Your task to perform on an android device: install app "Viber Messenger" Image 0: 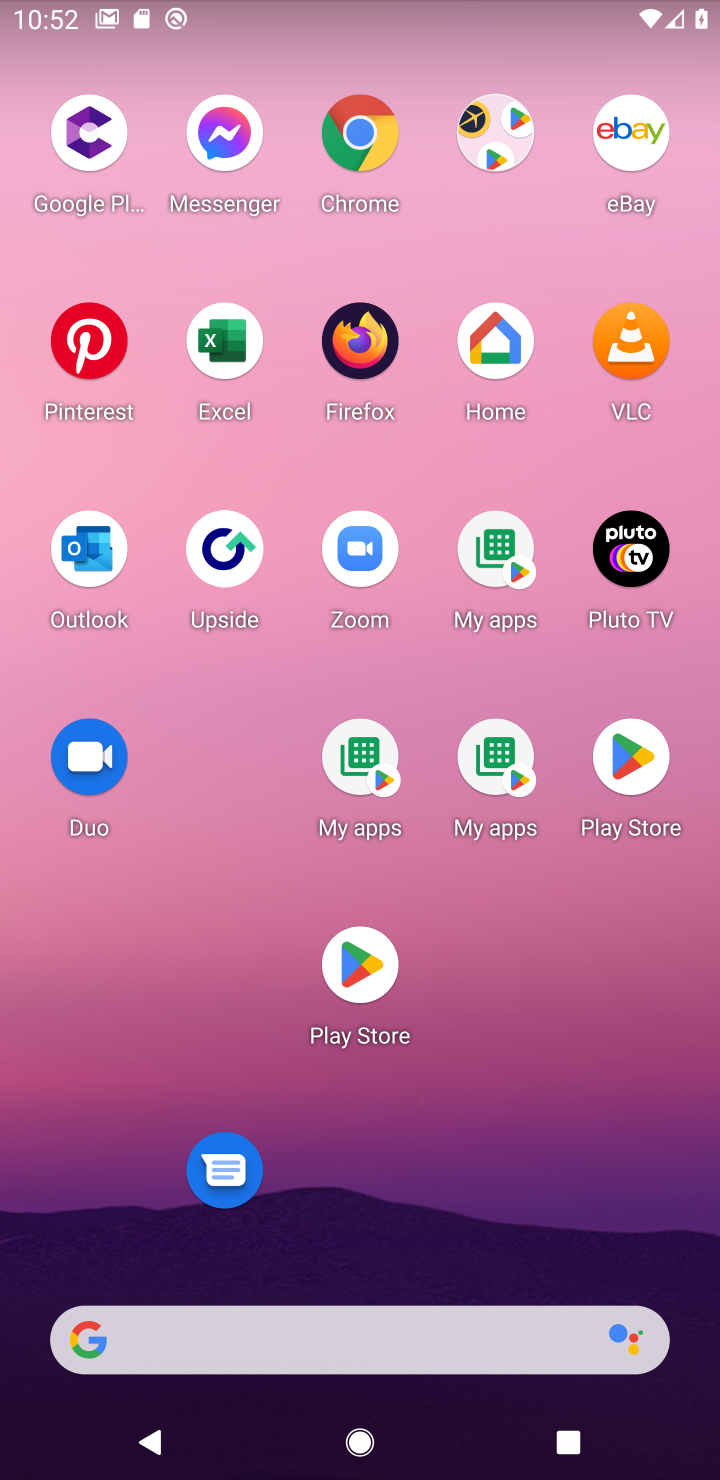
Step 0: click (655, 750)
Your task to perform on an android device: install app "Viber Messenger" Image 1: 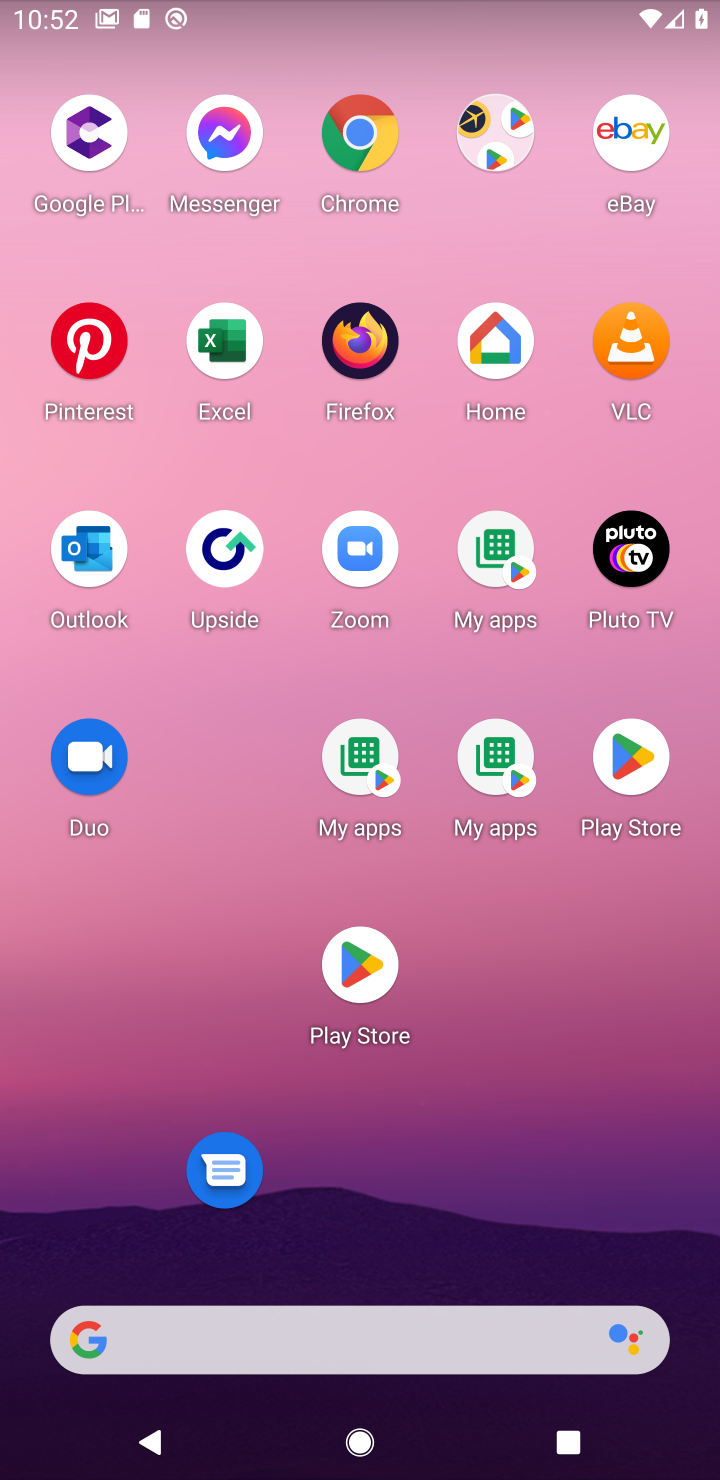
Step 1: click (660, 755)
Your task to perform on an android device: install app "Viber Messenger" Image 2: 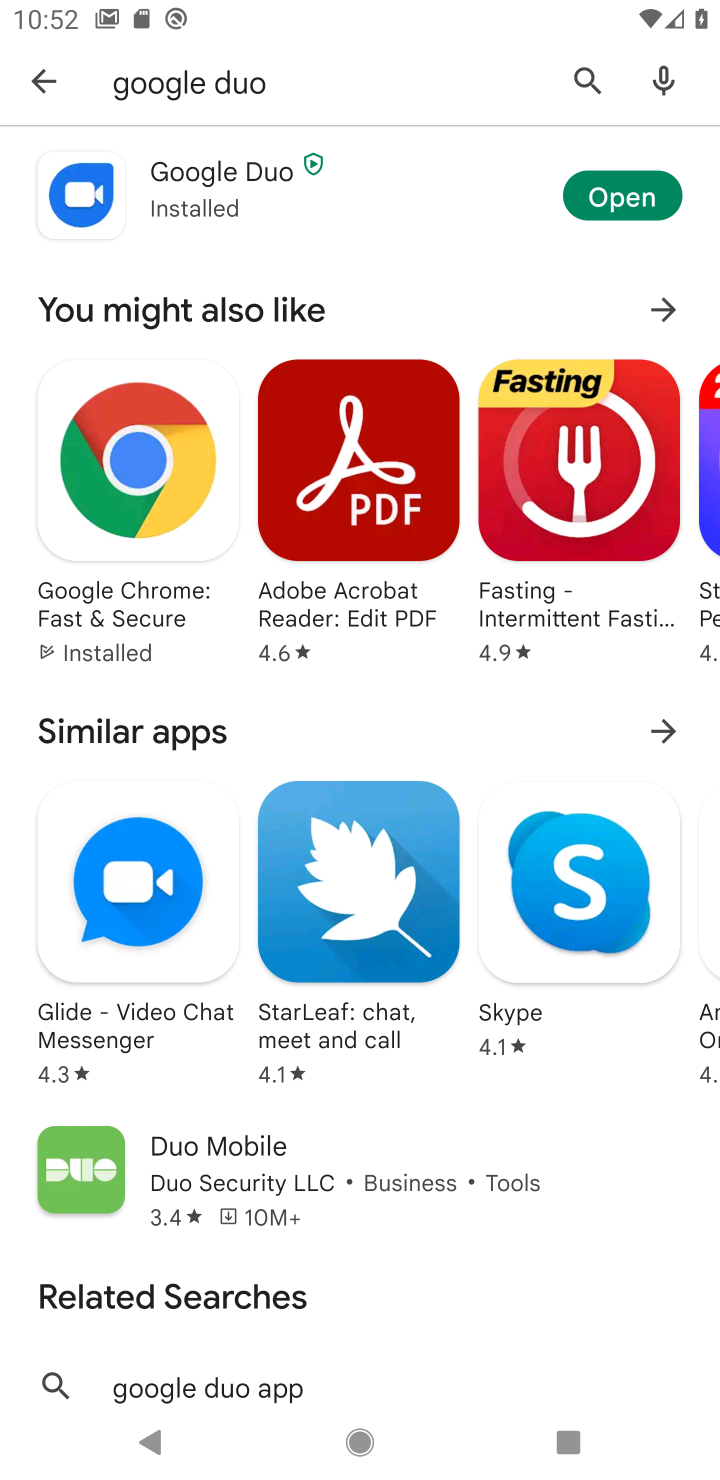
Step 2: click (43, 86)
Your task to perform on an android device: install app "Viber Messenger" Image 3: 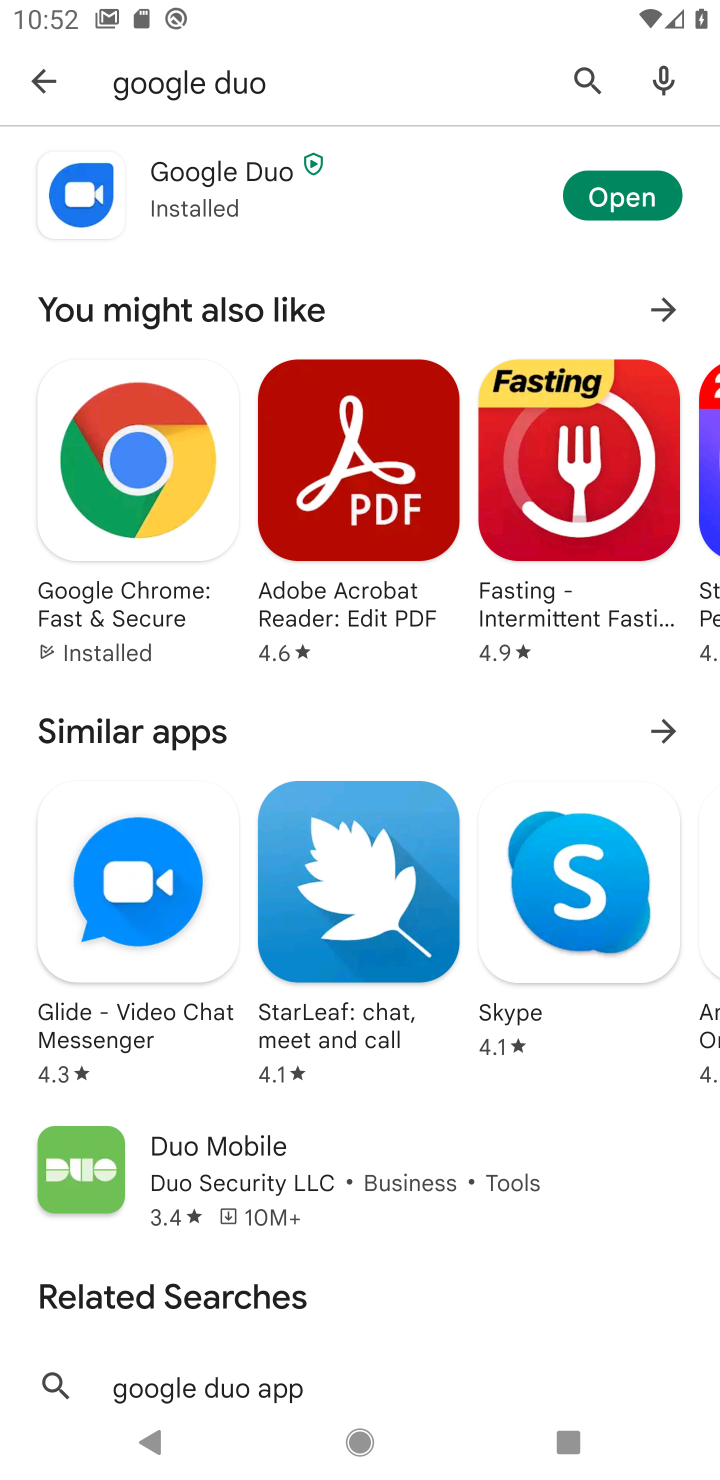
Step 3: click (42, 75)
Your task to perform on an android device: install app "Viber Messenger" Image 4: 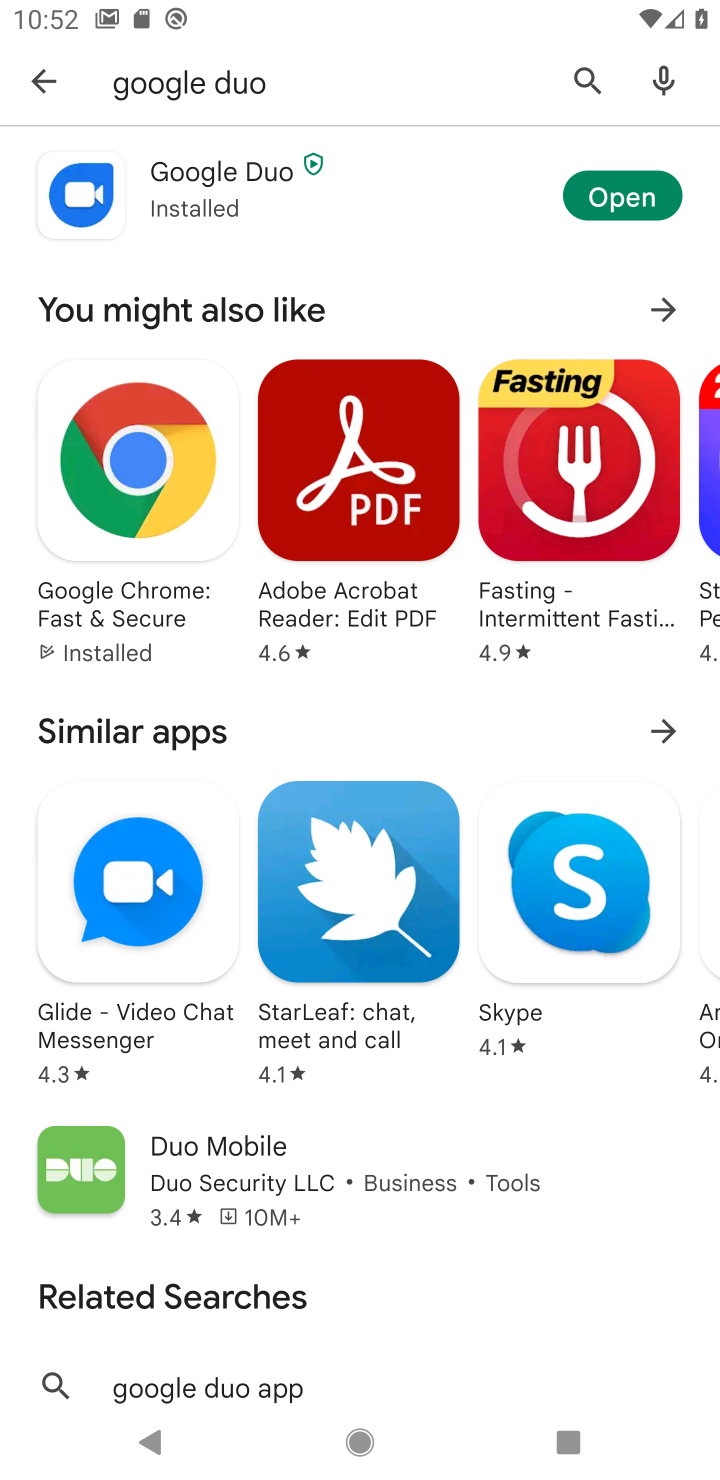
Step 4: click (49, 59)
Your task to perform on an android device: install app "Viber Messenger" Image 5: 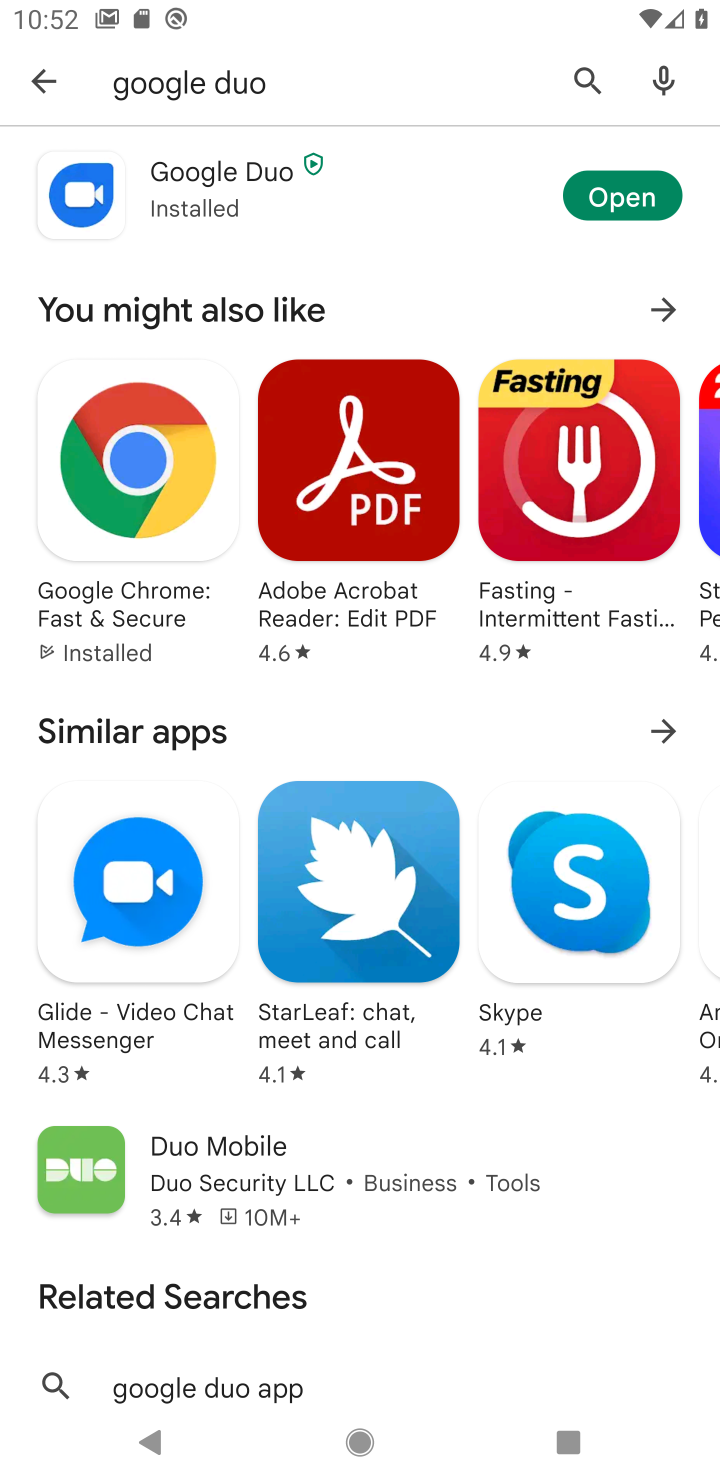
Step 5: click (49, 67)
Your task to perform on an android device: install app "Viber Messenger" Image 6: 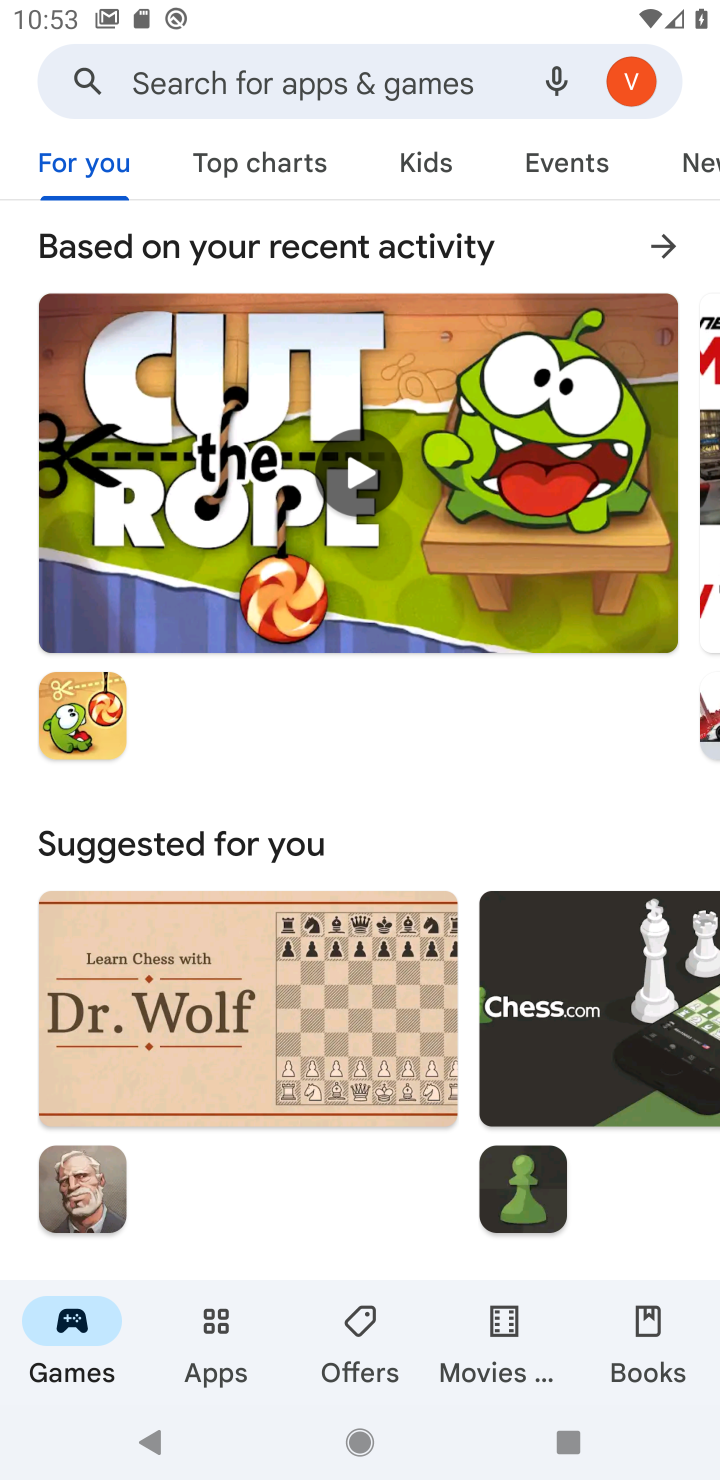
Step 6: click (192, 84)
Your task to perform on an android device: install app "Viber Messenger" Image 7: 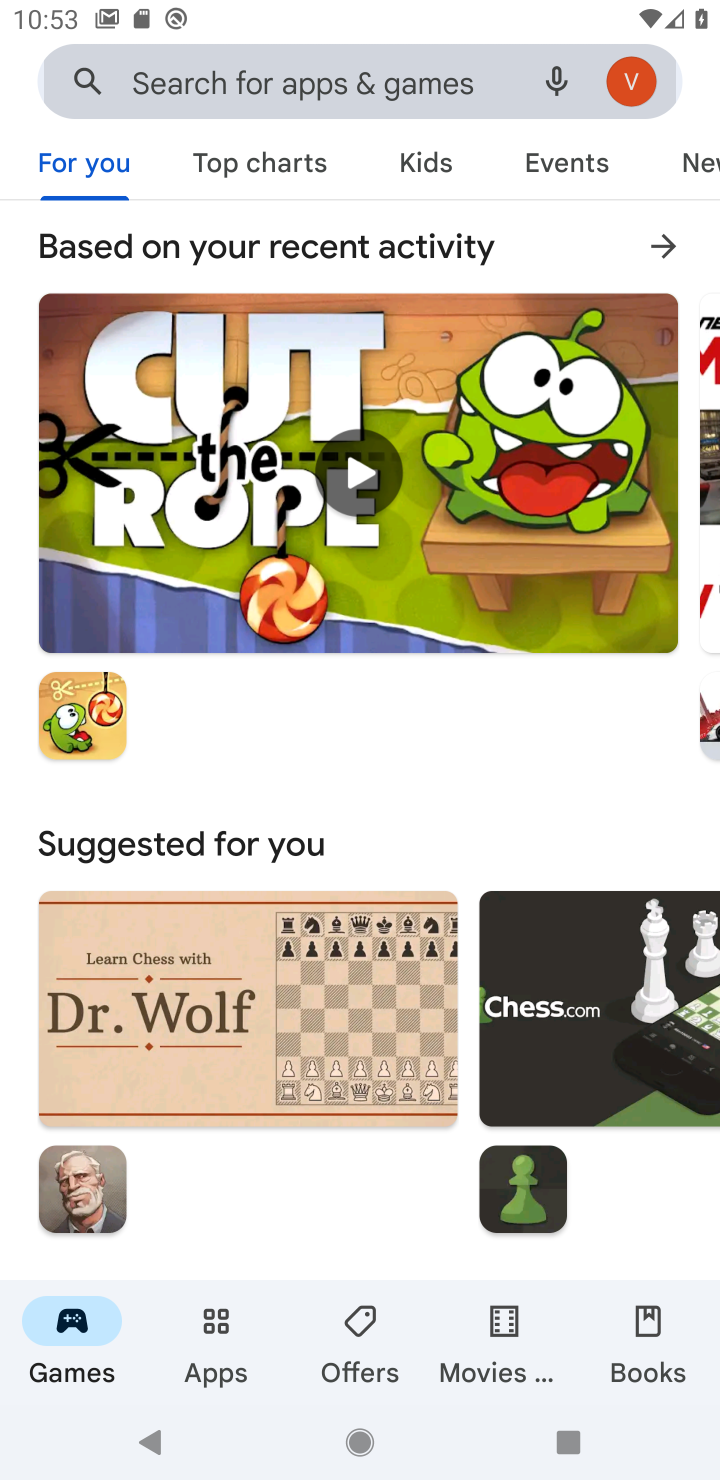
Step 7: click (152, 68)
Your task to perform on an android device: install app "Viber Messenger" Image 8: 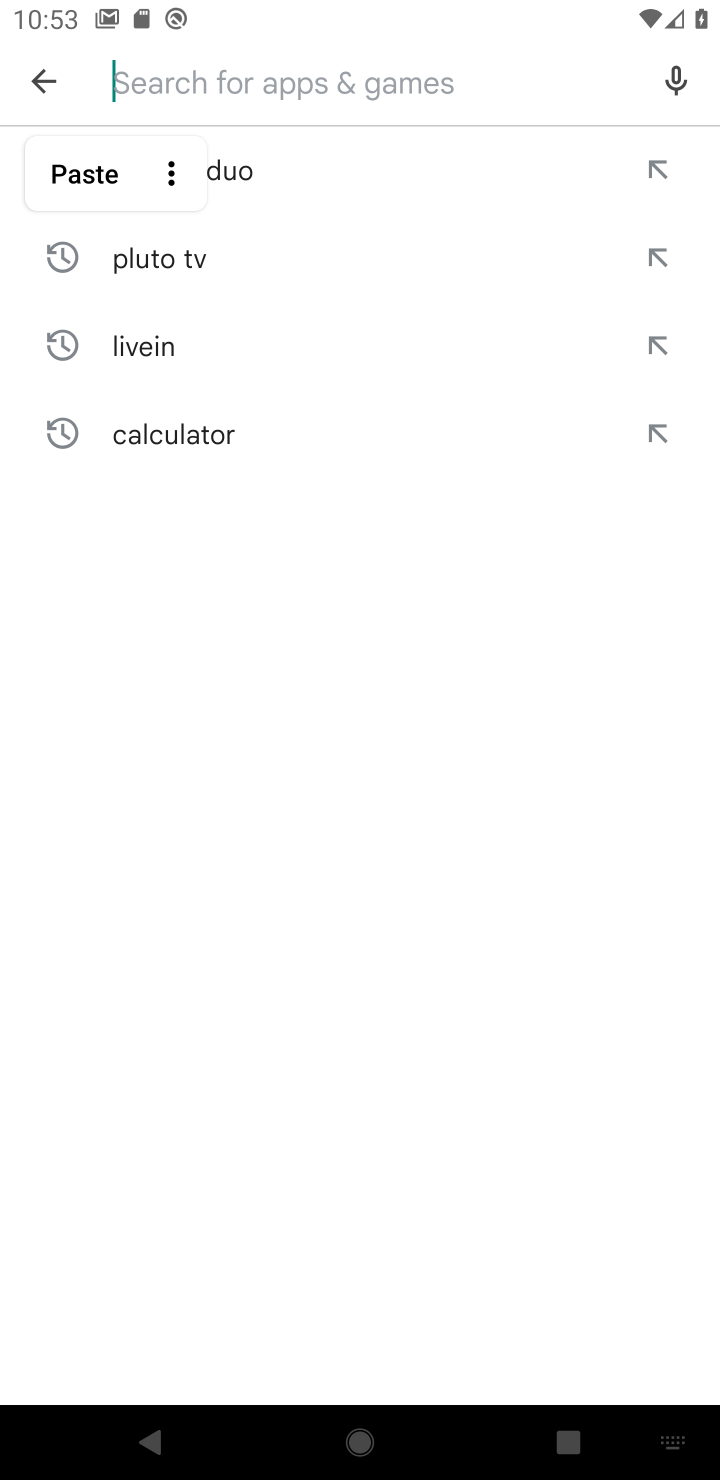
Step 8: type "Viber Messenger"
Your task to perform on an android device: install app "Viber Messenger" Image 9: 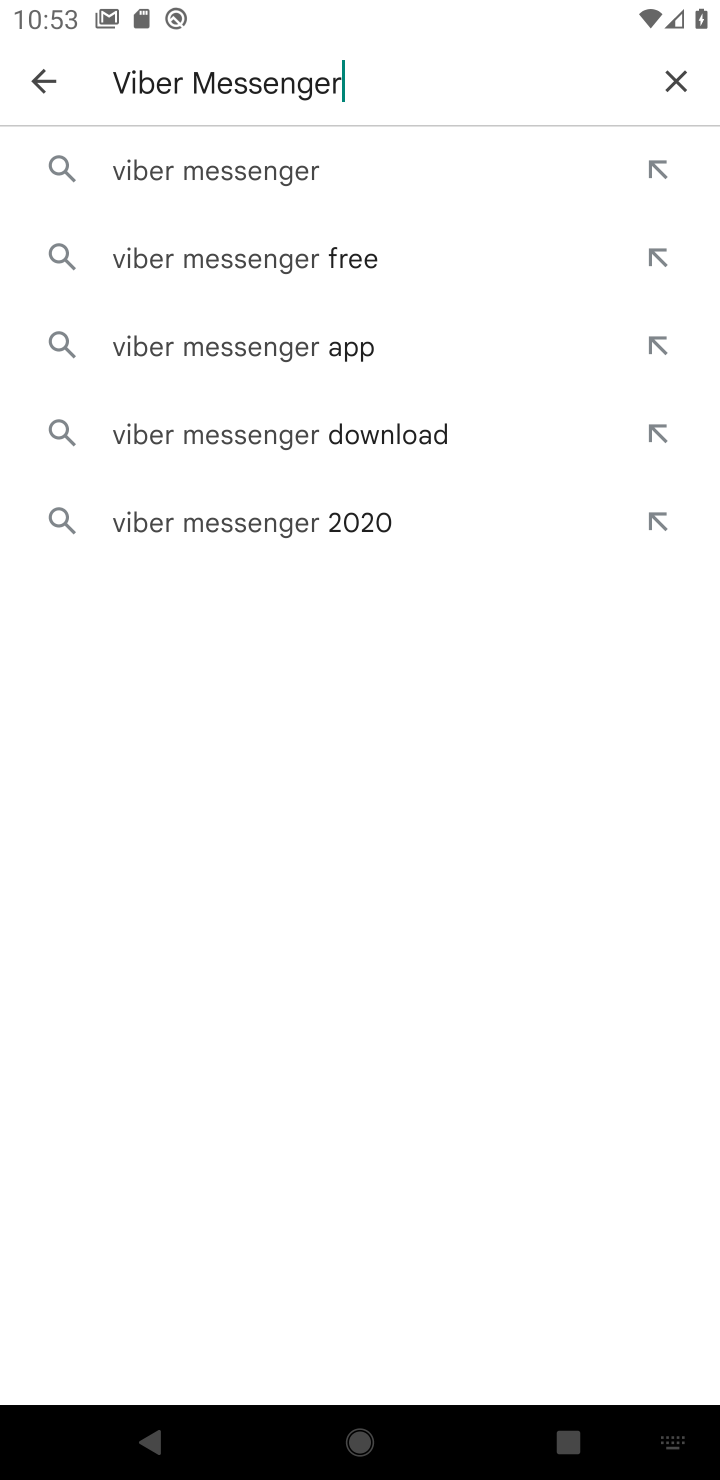
Step 9: click (246, 163)
Your task to perform on an android device: install app "Viber Messenger" Image 10: 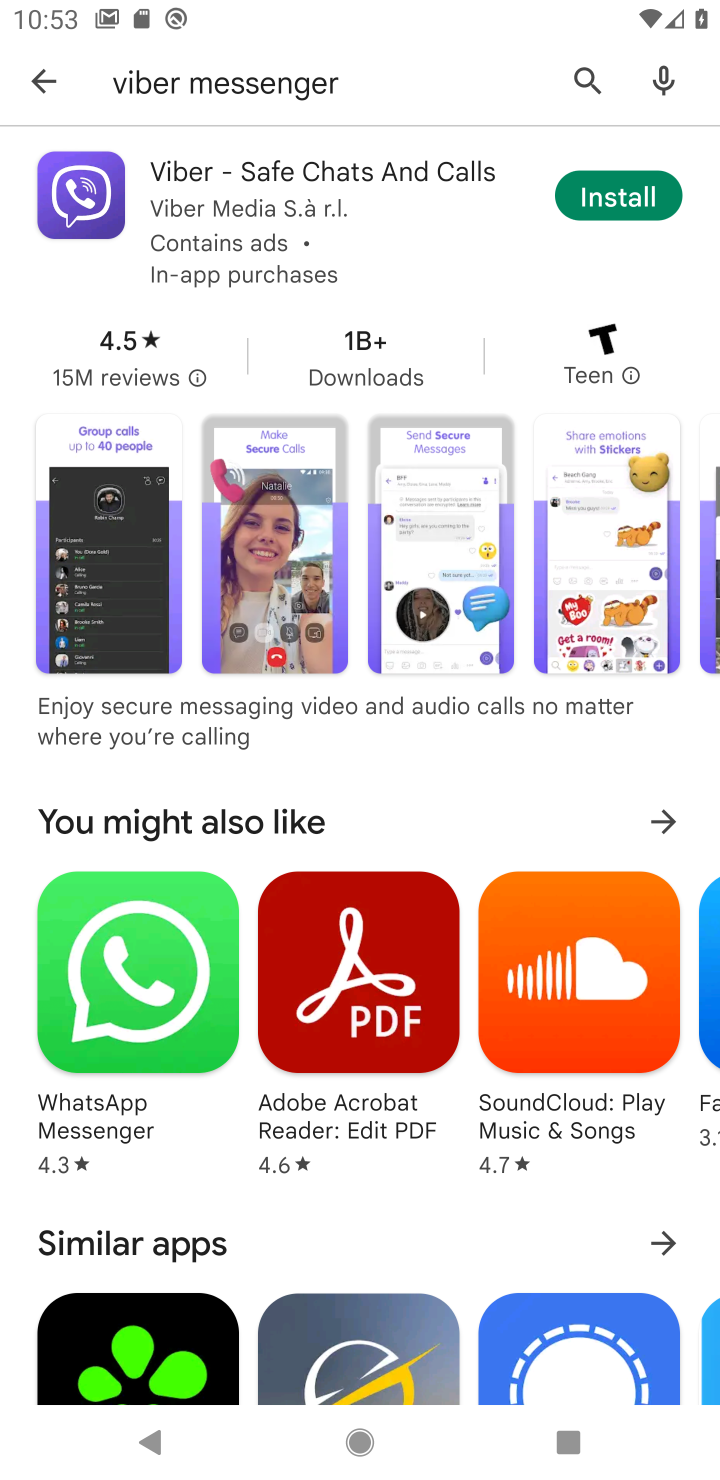
Step 10: click (611, 177)
Your task to perform on an android device: install app "Viber Messenger" Image 11: 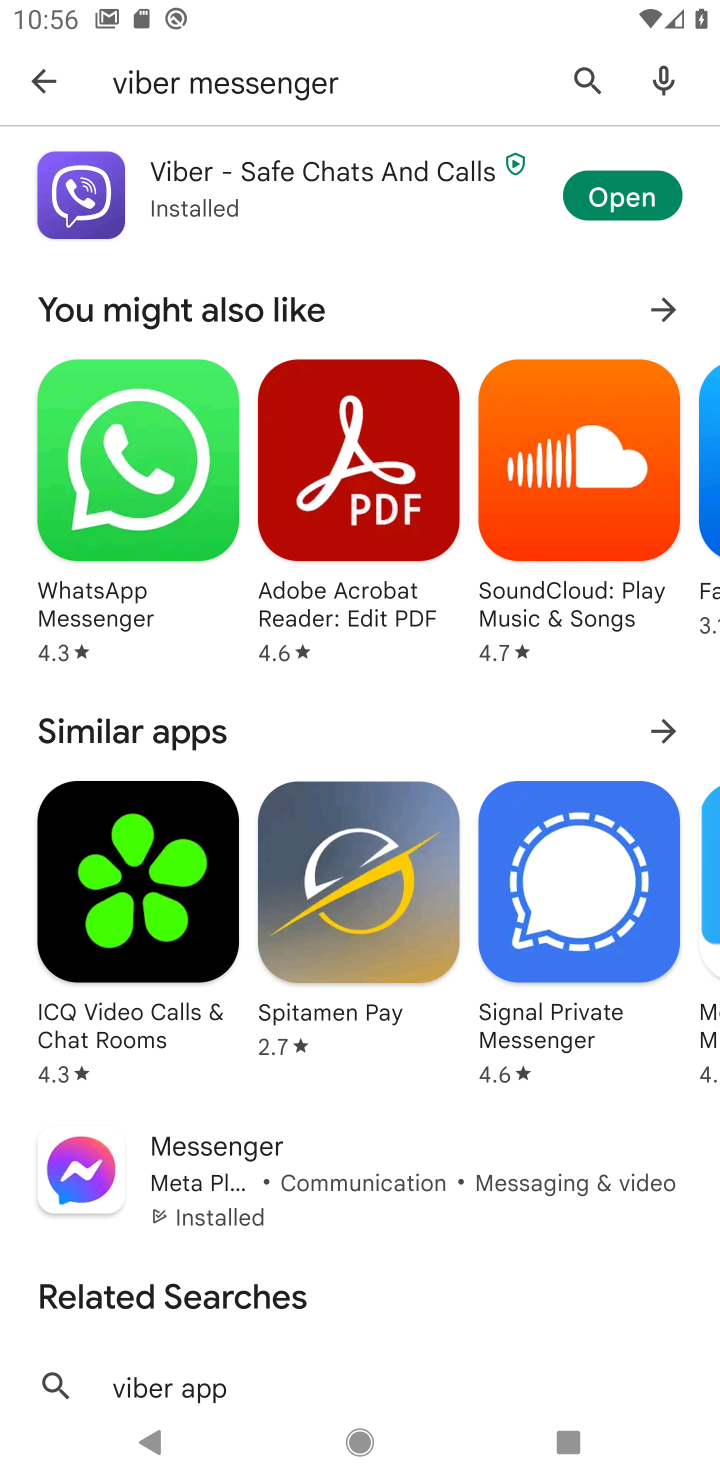
Step 11: click (615, 200)
Your task to perform on an android device: install app "Viber Messenger" Image 12: 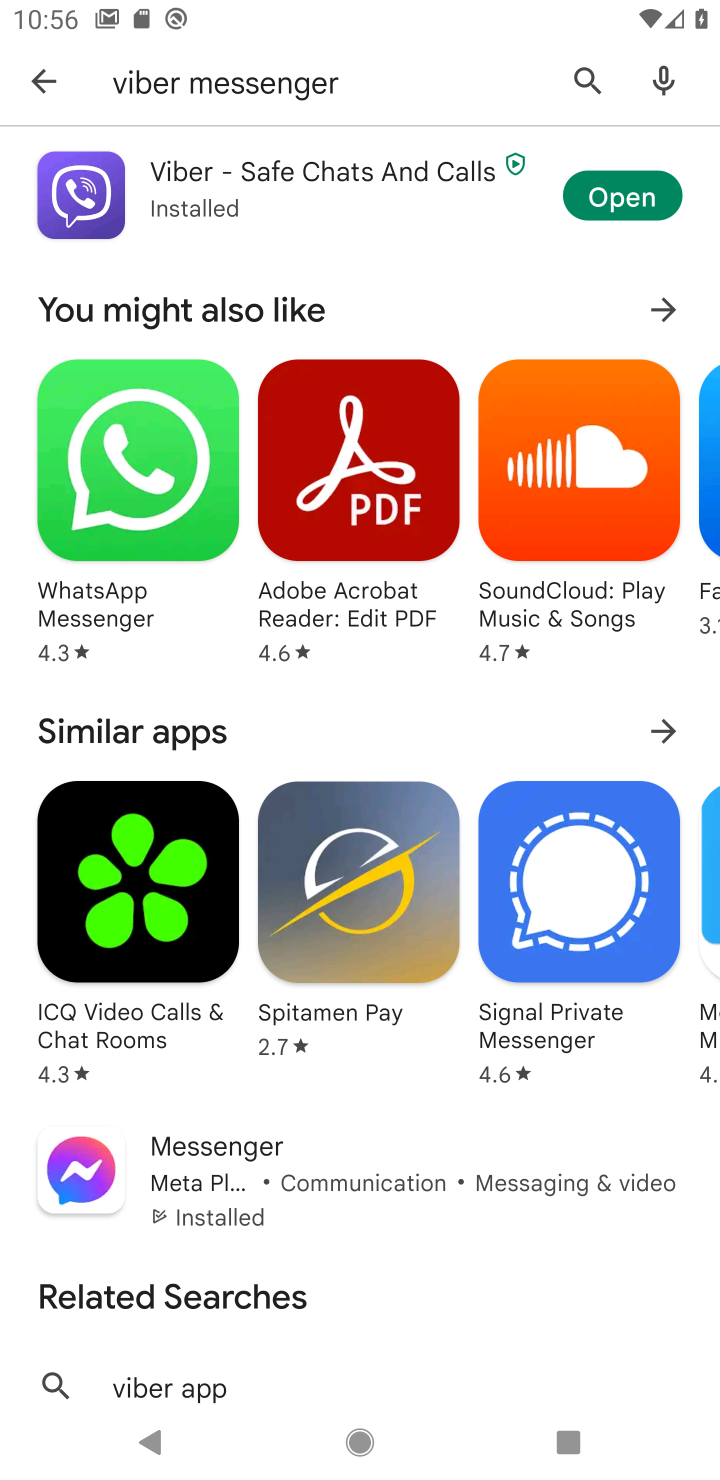
Step 12: click (615, 200)
Your task to perform on an android device: install app "Viber Messenger" Image 13: 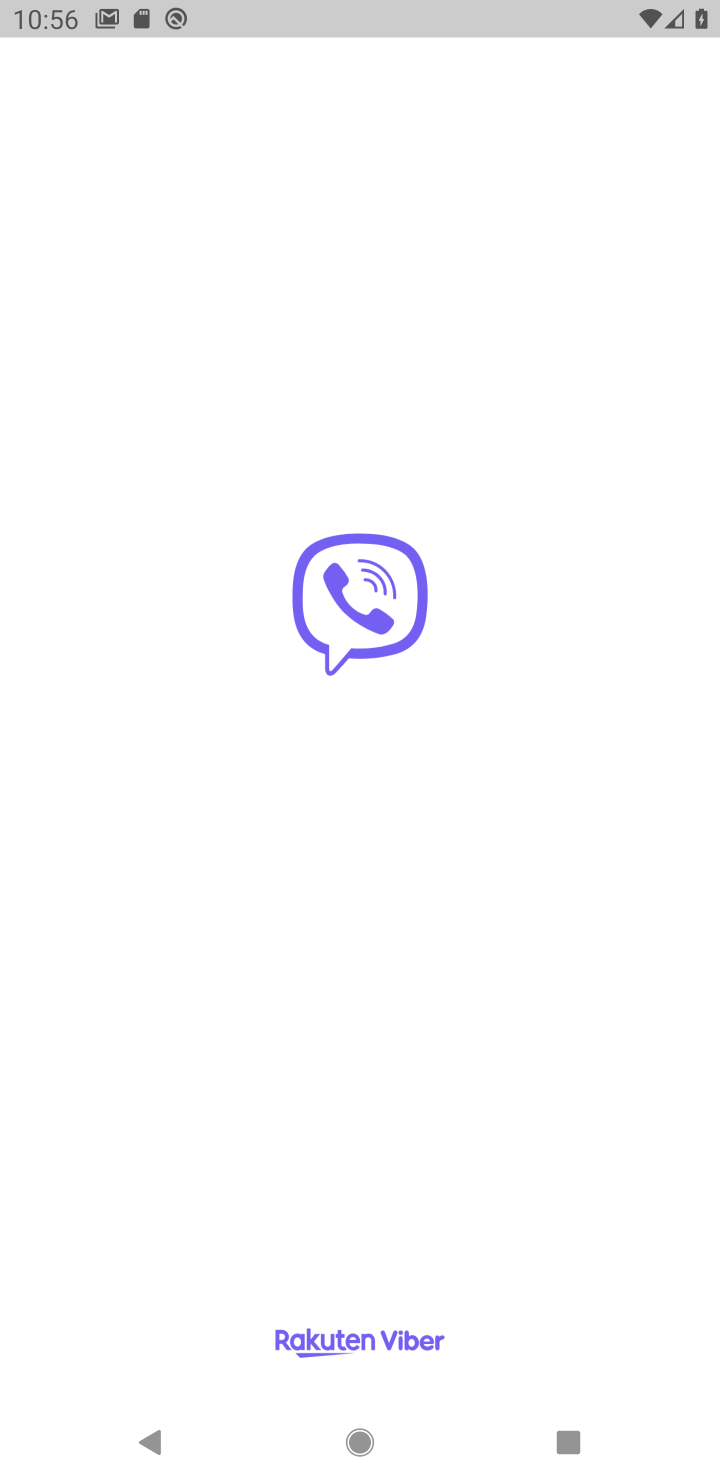
Step 13: task complete